Your task to perform on an android device: check google app version Image 0: 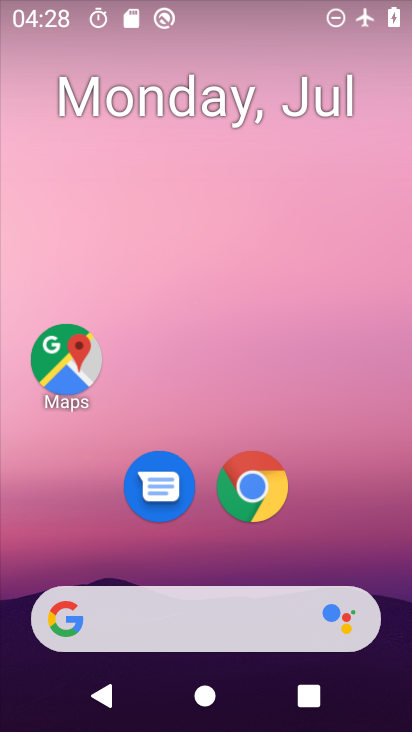
Step 0: drag from (165, 546) to (259, 24)
Your task to perform on an android device: check google app version Image 1: 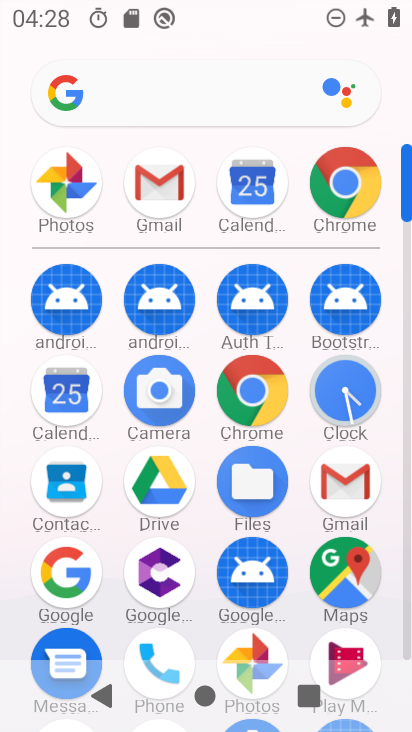
Step 1: click (64, 579)
Your task to perform on an android device: check google app version Image 2: 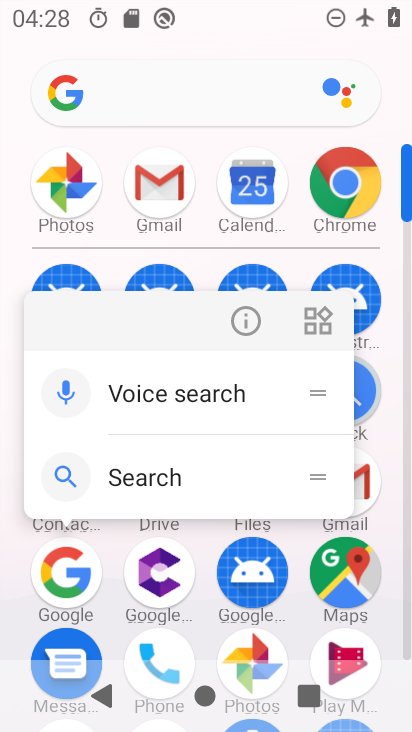
Step 2: click (246, 320)
Your task to perform on an android device: check google app version Image 3: 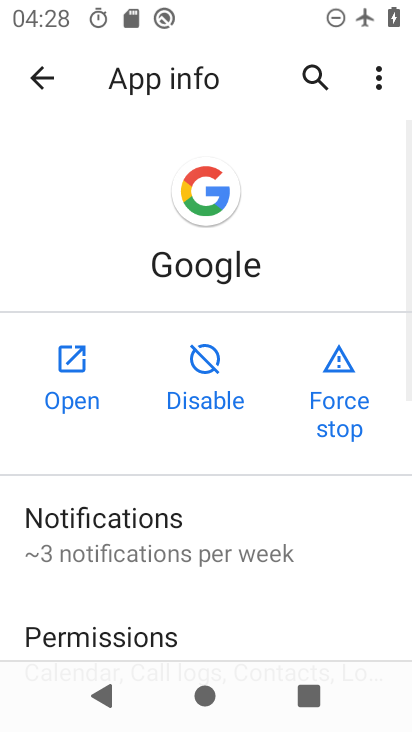
Step 3: drag from (142, 589) to (253, 19)
Your task to perform on an android device: check google app version Image 4: 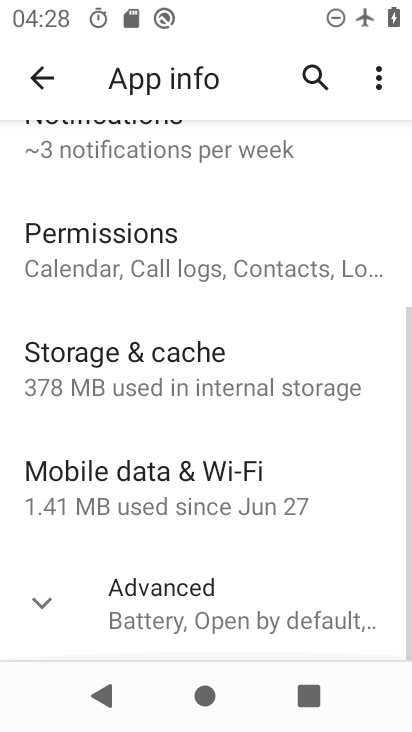
Step 4: drag from (139, 594) to (263, 5)
Your task to perform on an android device: check google app version Image 5: 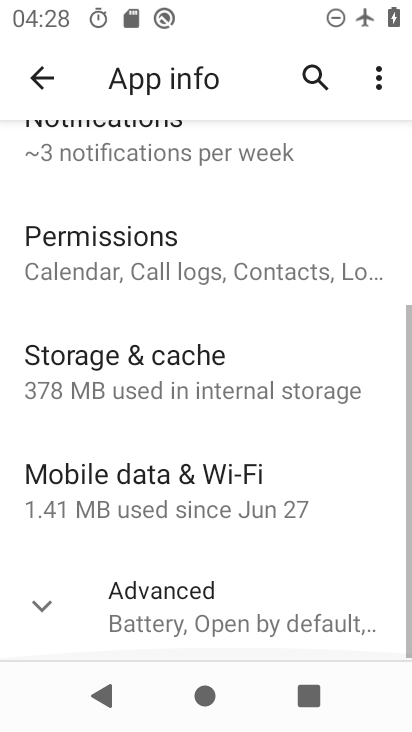
Step 5: drag from (198, 500) to (306, 34)
Your task to perform on an android device: check google app version Image 6: 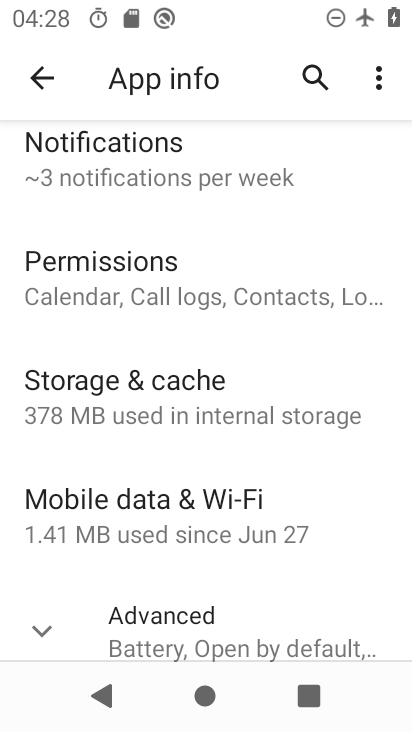
Step 6: click (167, 620)
Your task to perform on an android device: check google app version Image 7: 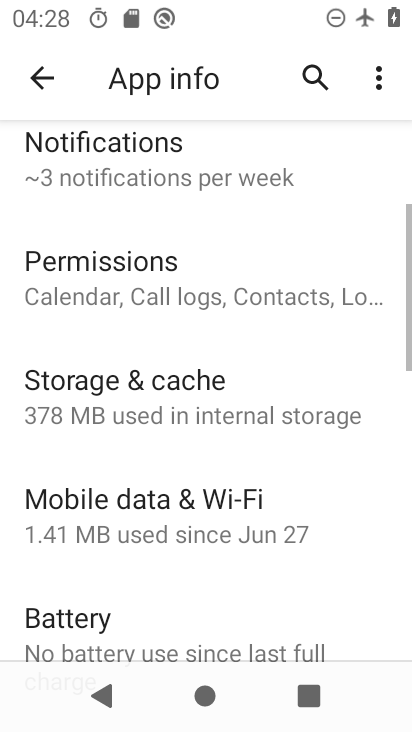
Step 7: task complete